Your task to perform on an android device: Open location settings Image 0: 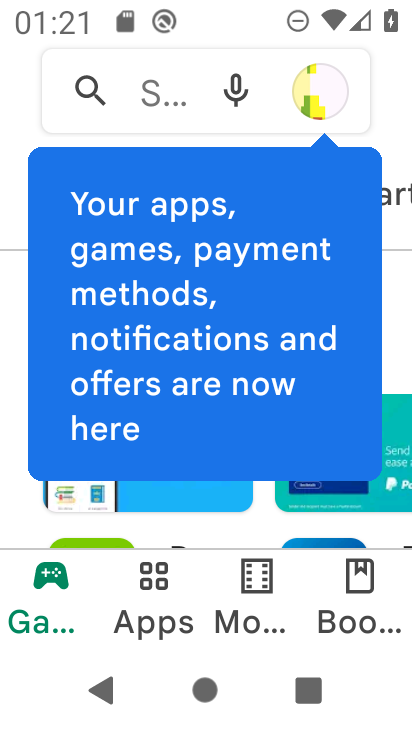
Step 0: press home button
Your task to perform on an android device: Open location settings Image 1: 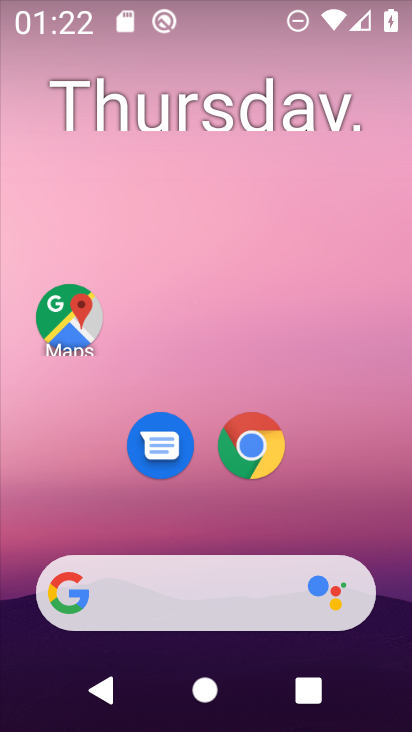
Step 1: click (56, 330)
Your task to perform on an android device: Open location settings Image 2: 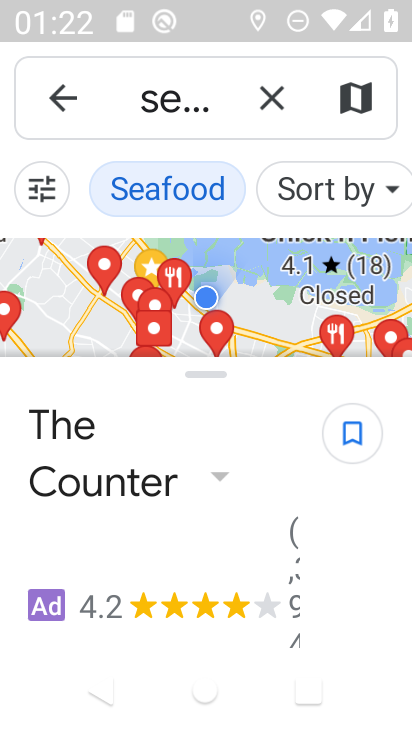
Step 2: press home button
Your task to perform on an android device: Open location settings Image 3: 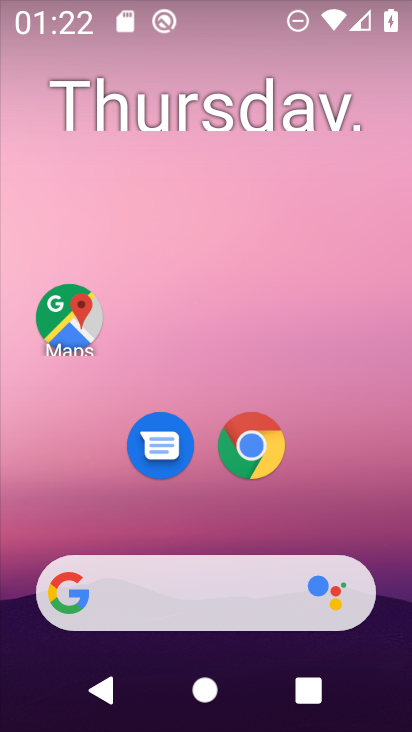
Step 3: drag from (157, 571) to (176, 283)
Your task to perform on an android device: Open location settings Image 4: 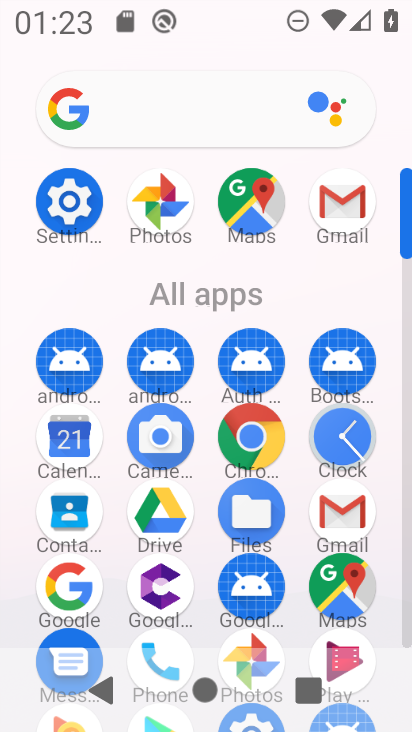
Step 4: click (59, 198)
Your task to perform on an android device: Open location settings Image 5: 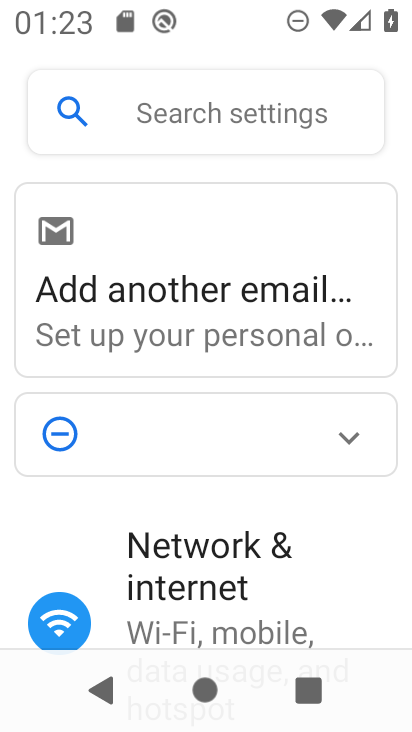
Step 5: drag from (139, 544) to (171, 173)
Your task to perform on an android device: Open location settings Image 6: 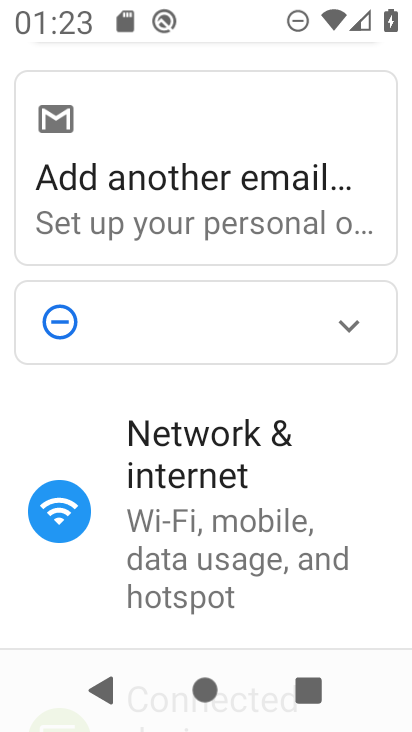
Step 6: drag from (199, 567) to (300, 80)
Your task to perform on an android device: Open location settings Image 7: 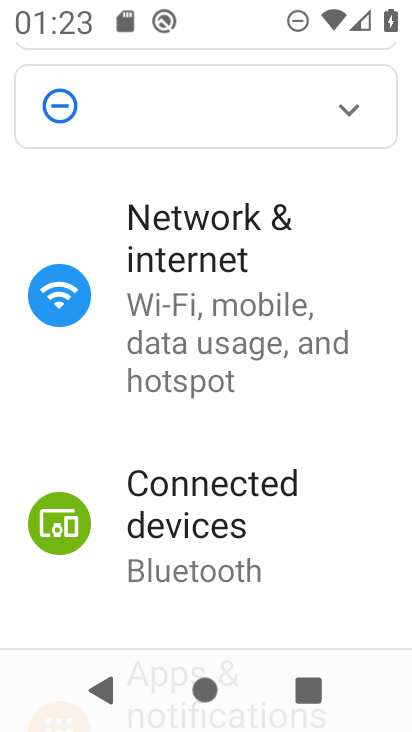
Step 7: drag from (111, 553) to (263, 21)
Your task to perform on an android device: Open location settings Image 8: 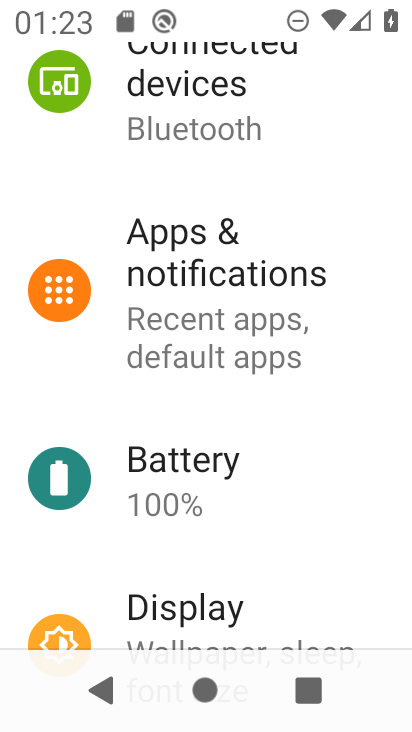
Step 8: drag from (167, 532) to (213, 102)
Your task to perform on an android device: Open location settings Image 9: 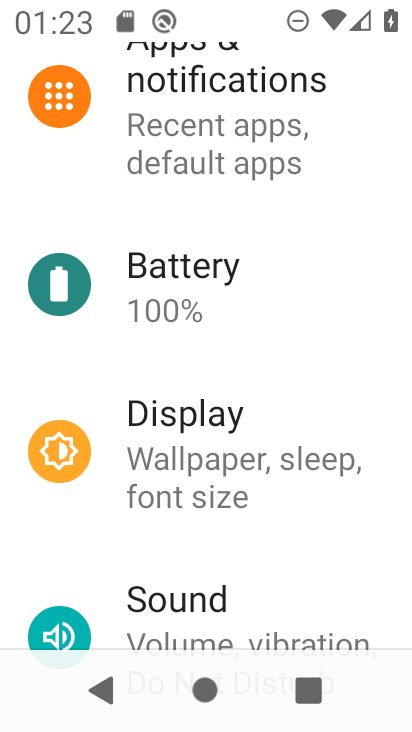
Step 9: drag from (92, 565) to (135, 254)
Your task to perform on an android device: Open location settings Image 10: 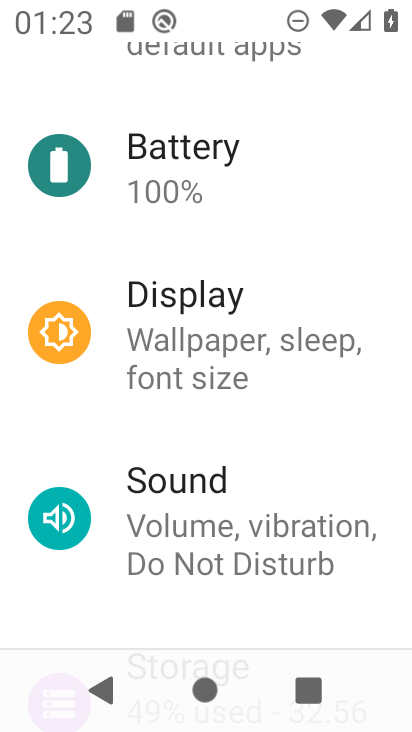
Step 10: drag from (150, 557) to (193, 162)
Your task to perform on an android device: Open location settings Image 11: 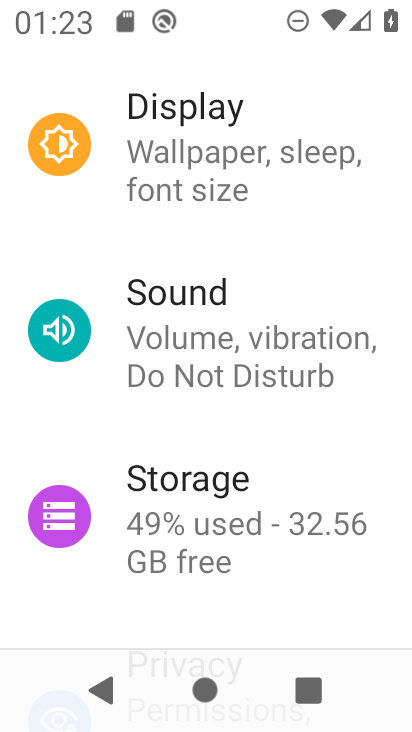
Step 11: drag from (154, 601) to (249, 82)
Your task to perform on an android device: Open location settings Image 12: 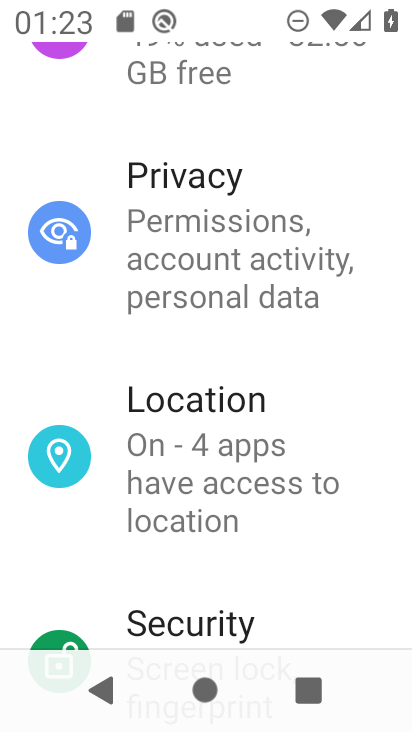
Step 12: click (181, 459)
Your task to perform on an android device: Open location settings Image 13: 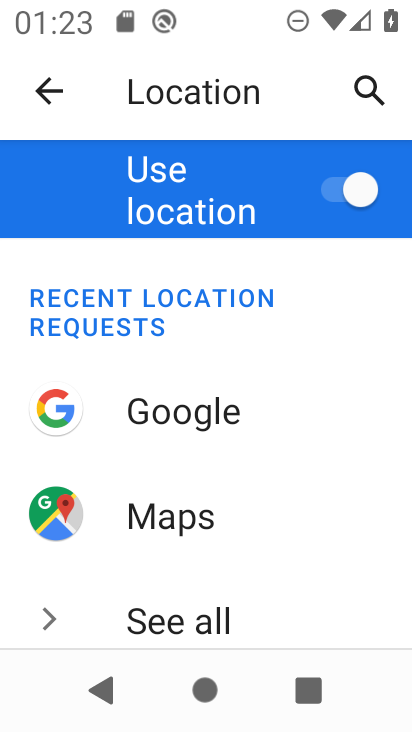
Step 13: task complete